Your task to perform on an android device: turn pop-ups off in chrome Image 0: 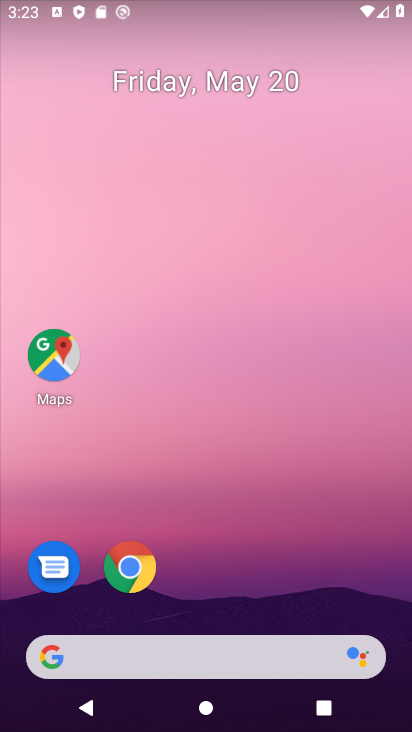
Step 0: drag from (270, 601) to (231, 71)
Your task to perform on an android device: turn pop-ups off in chrome Image 1: 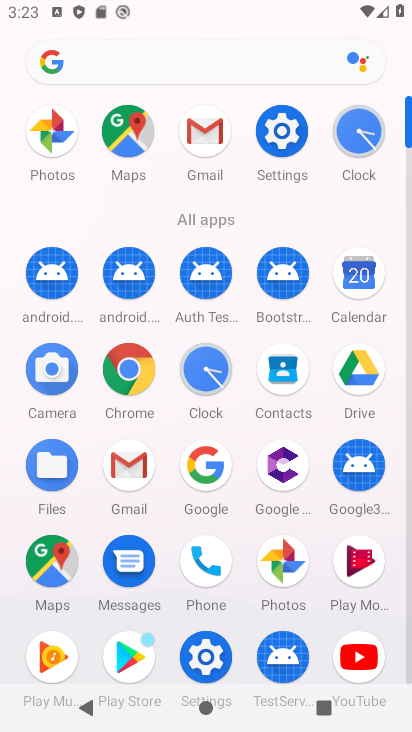
Step 1: click (126, 378)
Your task to perform on an android device: turn pop-ups off in chrome Image 2: 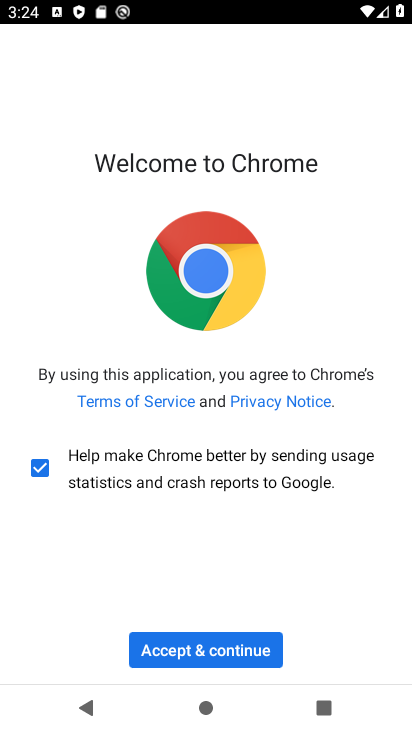
Step 2: click (190, 644)
Your task to perform on an android device: turn pop-ups off in chrome Image 3: 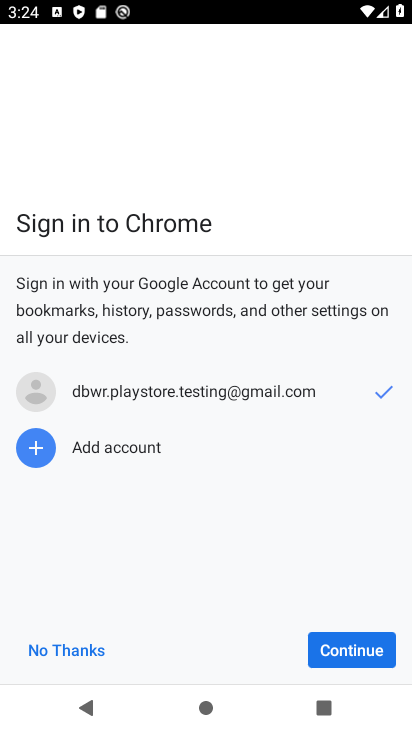
Step 3: click (84, 662)
Your task to perform on an android device: turn pop-ups off in chrome Image 4: 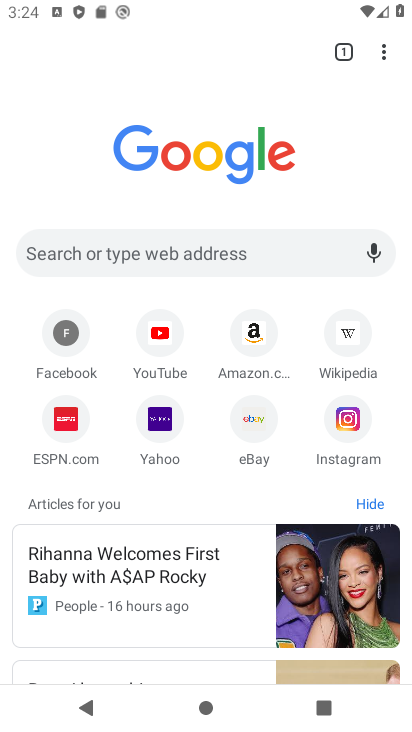
Step 4: drag from (380, 53) to (169, 450)
Your task to perform on an android device: turn pop-ups off in chrome Image 5: 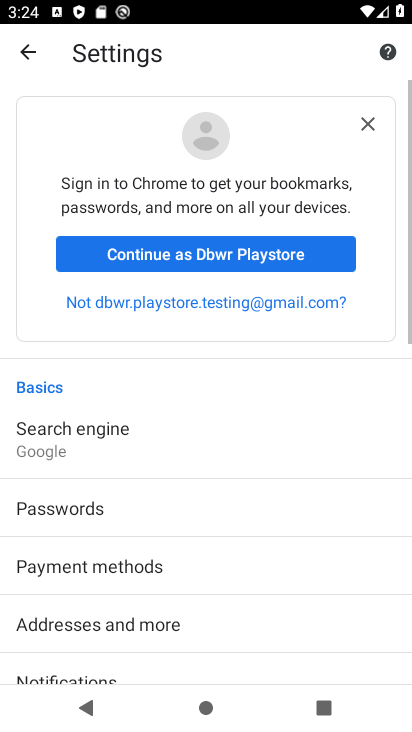
Step 5: drag from (286, 600) to (243, 252)
Your task to perform on an android device: turn pop-ups off in chrome Image 6: 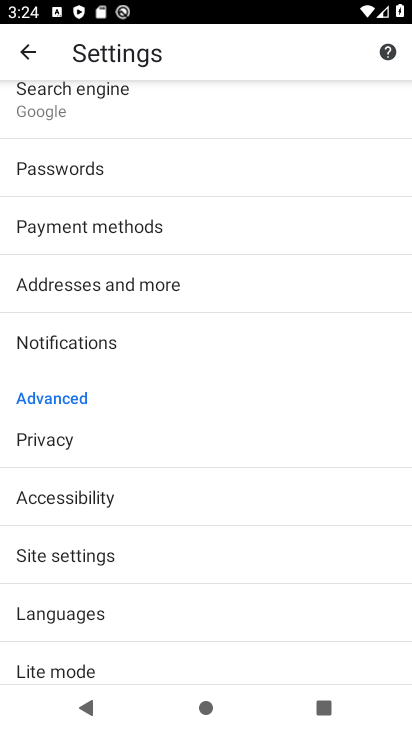
Step 6: click (87, 563)
Your task to perform on an android device: turn pop-ups off in chrome Image 7: 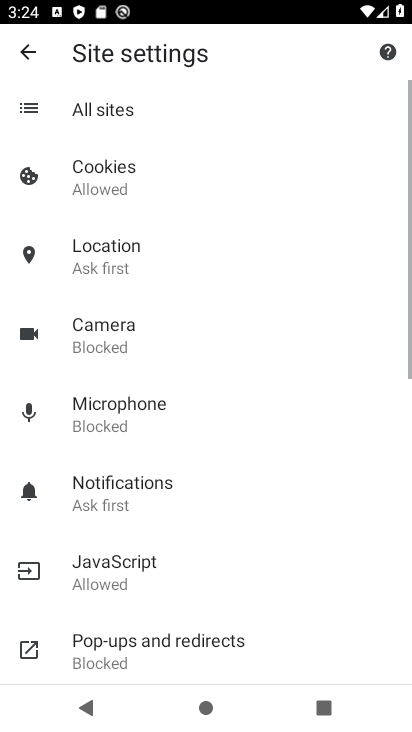
Step 7: drag from (131, 619) to (94, 155)
Your task to perform on an android device: turn pop-ups off in chrome Image 8: 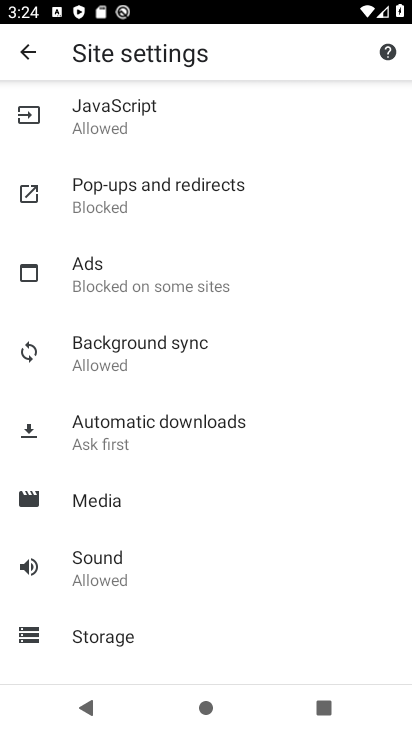
Step 8: click (106, 180)
Your task to perform on an android device: turn pop-ups off in chrome Image 9: 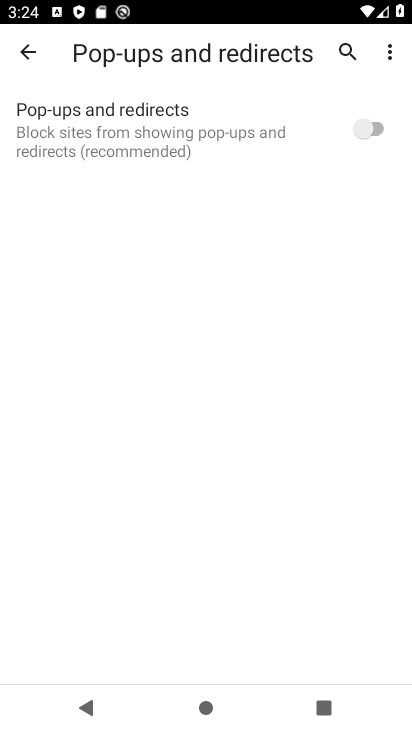
Step 9: task complete